Your task to perform on an android device: Go to display settings Image 0: 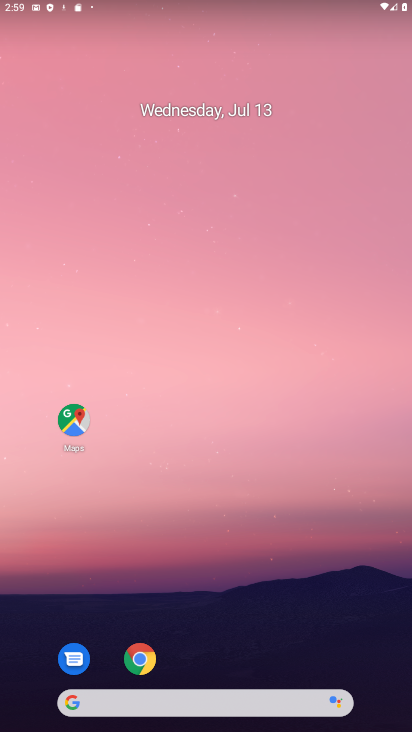
Step 0: press back button
Your task to perform on an android device: Go to display settings Image 1: 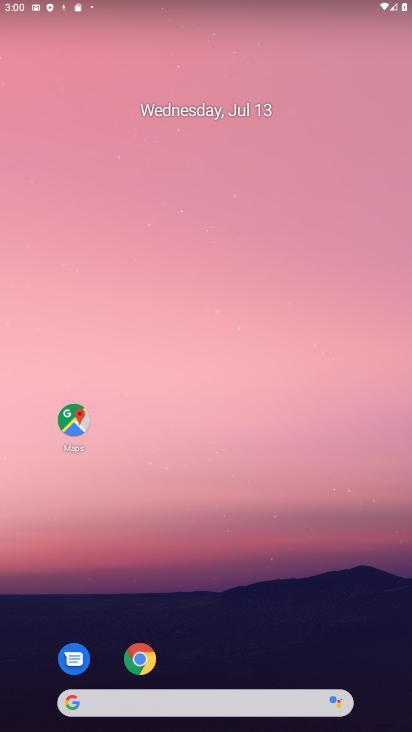
Step 1: drag from (233, 637) to (210, 92)
Your task to perform on an android device: Go to display settings Image 2: 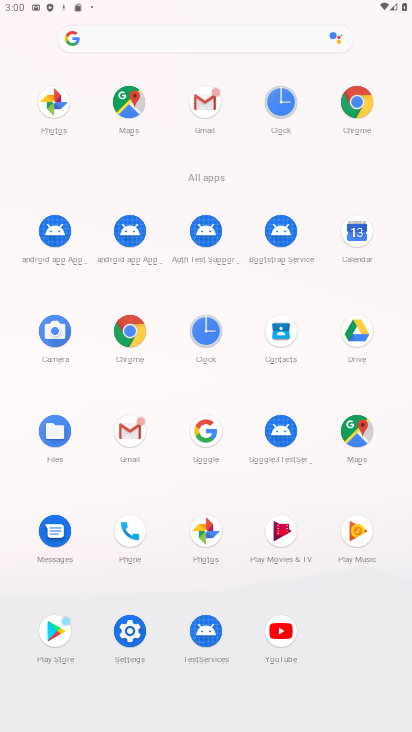
Step 2: click (183, 4)
Your task to perform on an android device: Go to display settings Image 3: 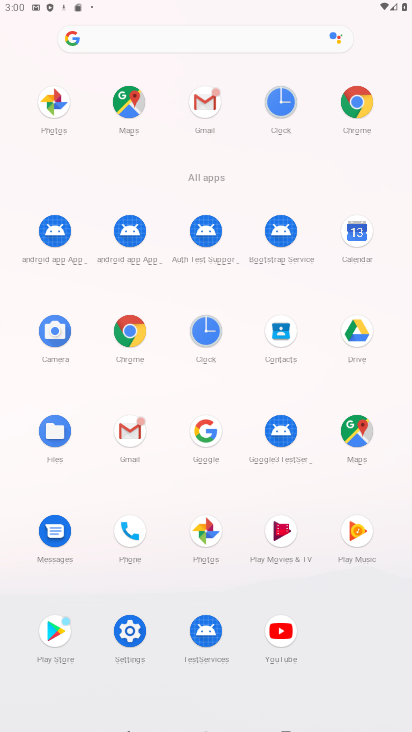
Step 3: click (179, 23)
Your task to perform on an android device: Go to display settings Image 4: 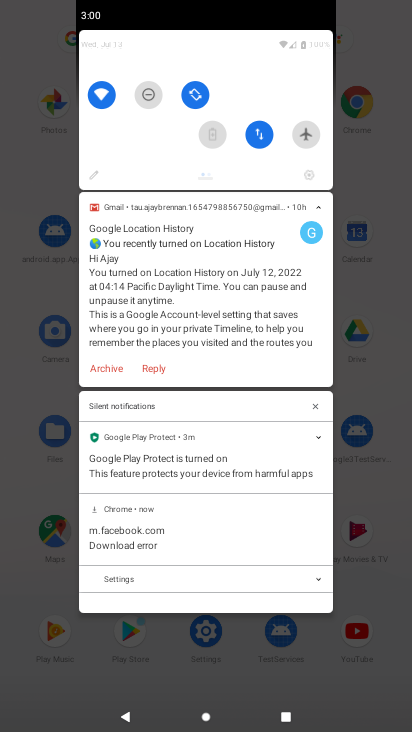
Step 4: drag from (193, 598) to (197, 144)
Your task to perform on an android device: Go to display settings Image 5: 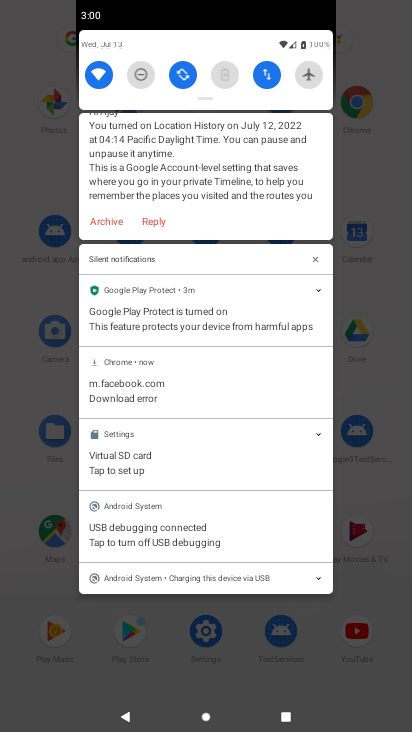
Step 5: drag from (255, 703) to (241, 285)
Your task to perform on an android device: Go to display settings Image 6: 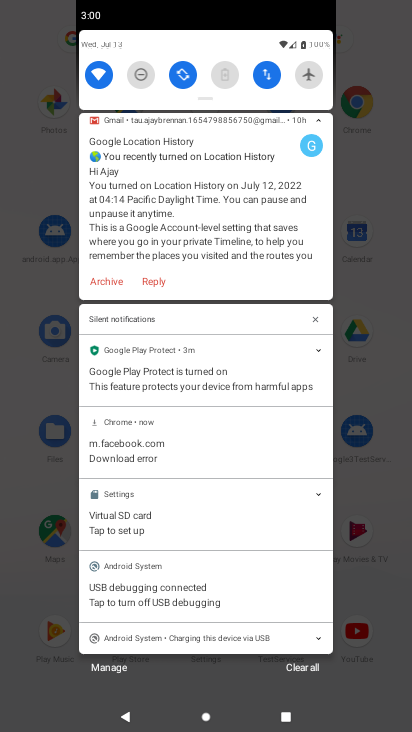
Step 6: drag from (248, 671) to (159, 45)
Your task to perform on an android device: Go to display settings Image 7: 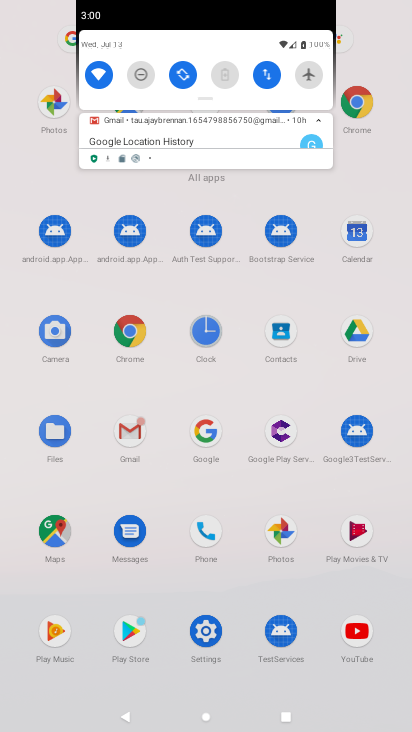
Step 7: click (161, 14)
Your task to perform on an android device: Go to display settings Image 8: 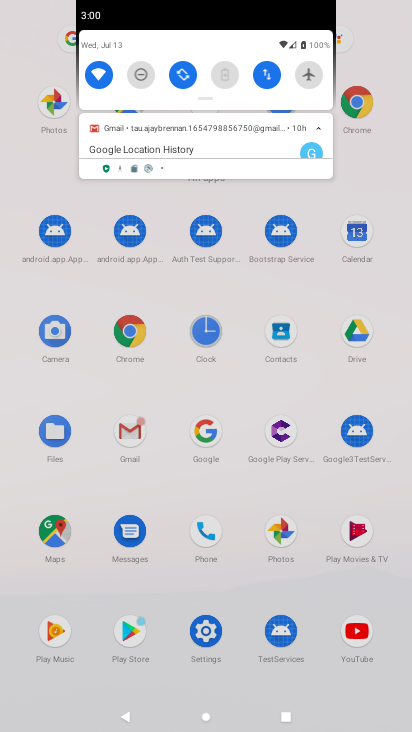
Step 8: click (130, 637)
Your task to perform on an android device: Go to display settings Image 9: 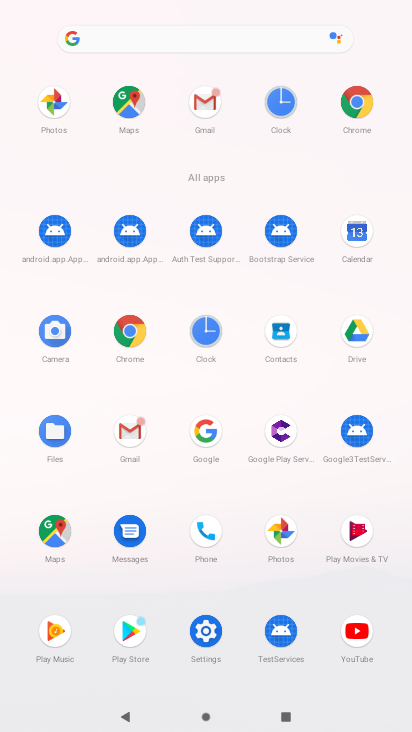
Step 9: click (130, 635)
Your task to perform on an android device: Go to display settings Image 10: 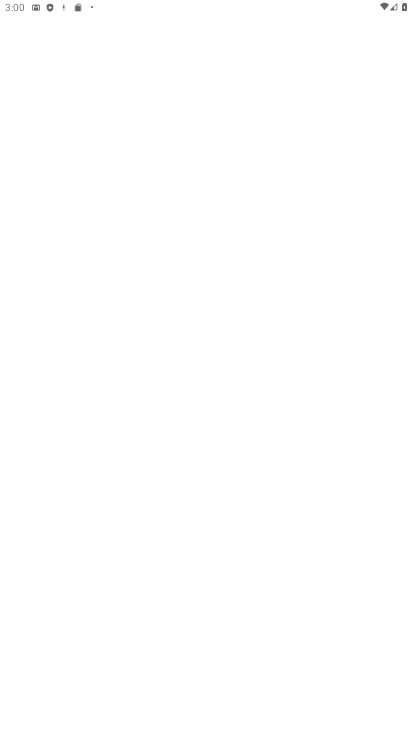
Step 10: click (398, 178)
Your task to perform on an android device: Go to display settings Image 11: 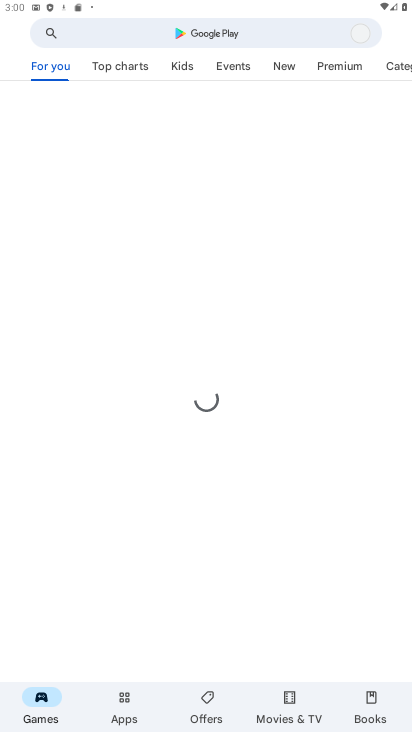
Step 11: click (209, 644)
Your task to perform on an android device: Go to display settings Image 12: 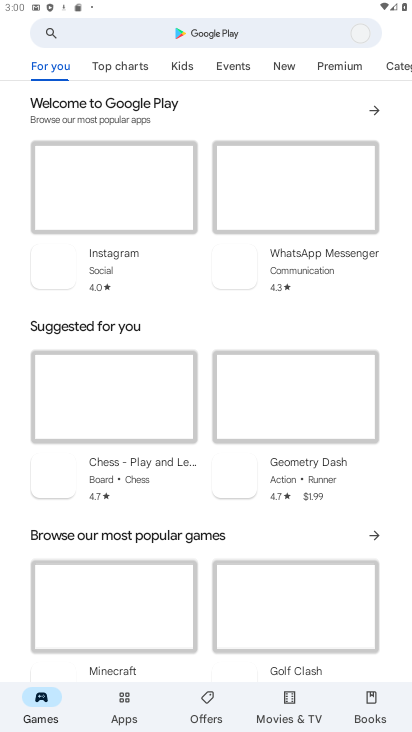
Step 12: click (205, 630)
Your task to perform on an android device: Go to display settings Image 13: 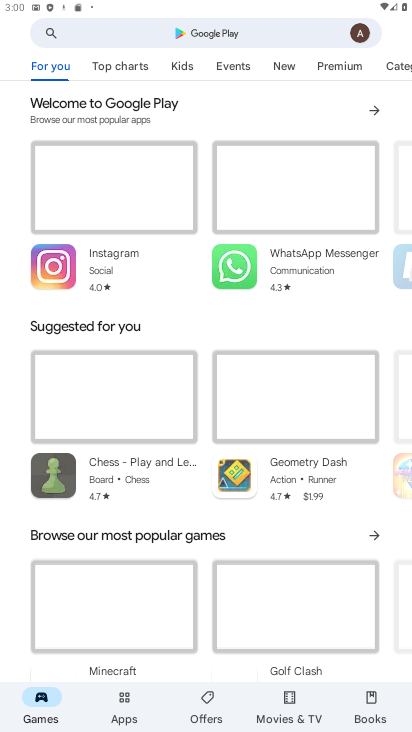
Step 13: click (206, 629)
Your task to perform on an android device: Go to display settings Image 14: 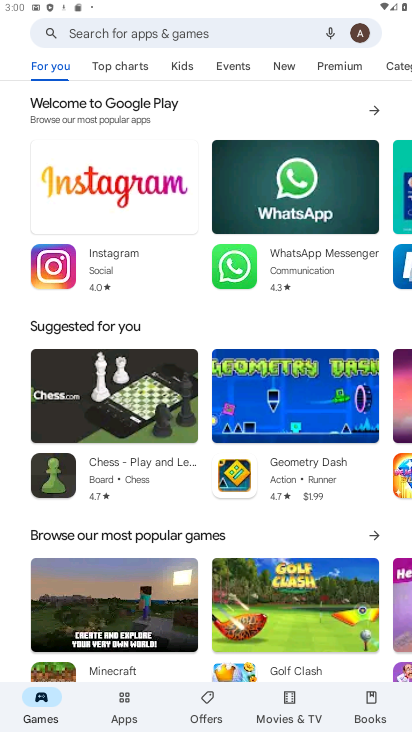
Step 14: press back button
Your task to perform on an android device: Go to display settings Image 15: 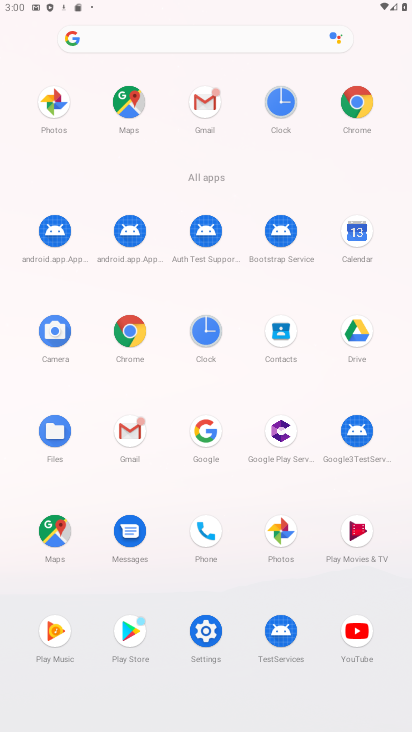
Step 15: click (209, 621)
Your task to perform on an android device: Go to display settings Image 16: 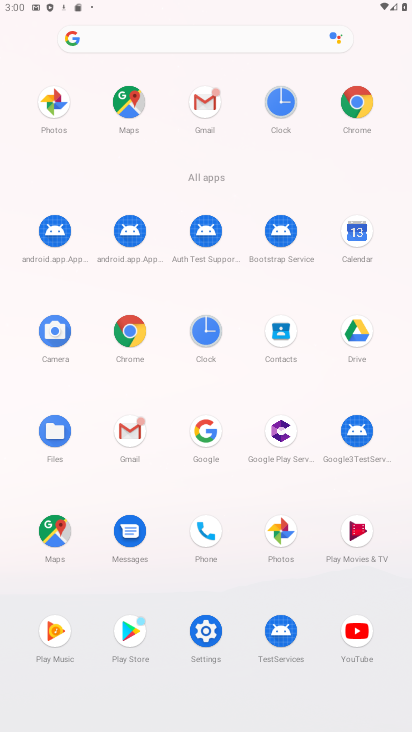
Step 16: click (209, 621)
Your task to perform on an android device: Go to display settings Image 17: 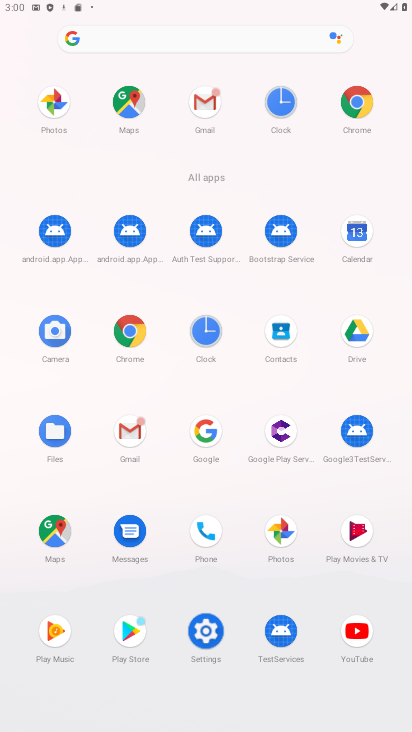
Step 17: click (209, 621)
Your task to perform on an android device: Go to display settings Image 18: 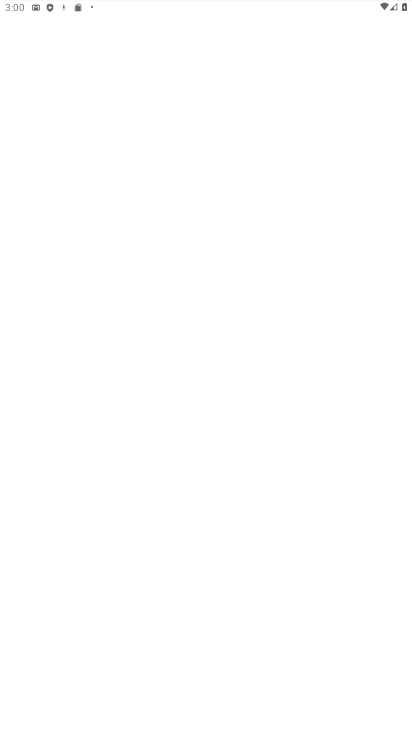
Step 18: click (209, 621)
Your task to perform on an android device: Go to display settings Image 19: 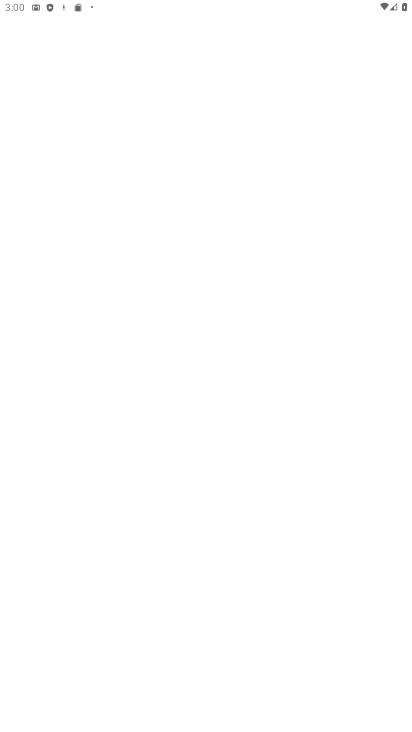
Step 19: click (210, 620)
Your task to perform on an android device: Go to display settings Image 20: 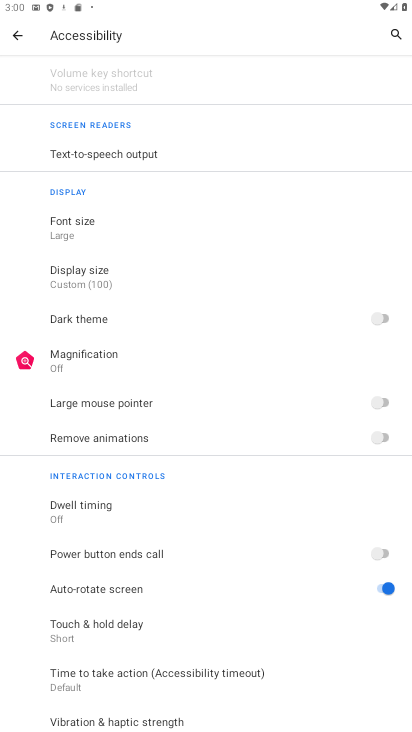
Step 20: click (15, 40)
Your task to perform on an android device: Go to display settings Image 21: 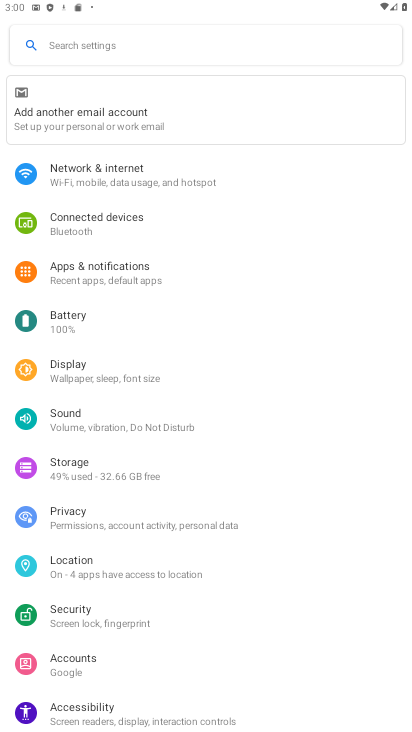
Step 21: click (59, 372)
Your task to perform on an android device: Go to display settings Image 22: 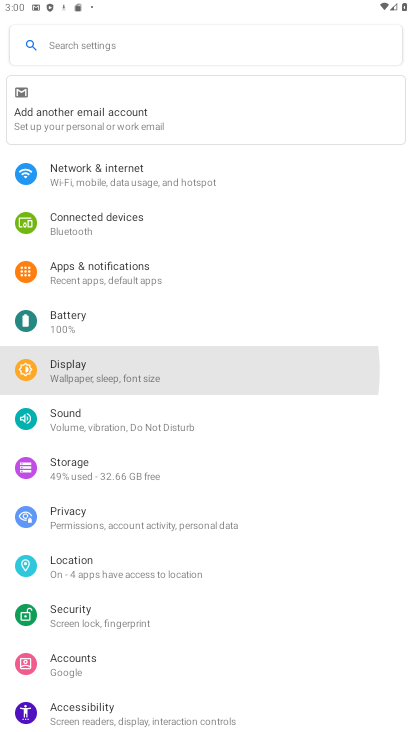
Step 22: click (67, 357)
Your task to perform on an android device: Go to display settings Image 23: 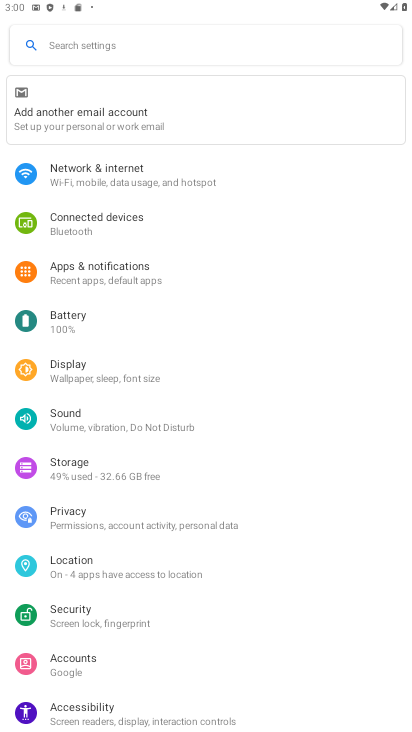
Step 23: click (82, 364)
Your task to perform on an android device: Go to display settings Image 24: 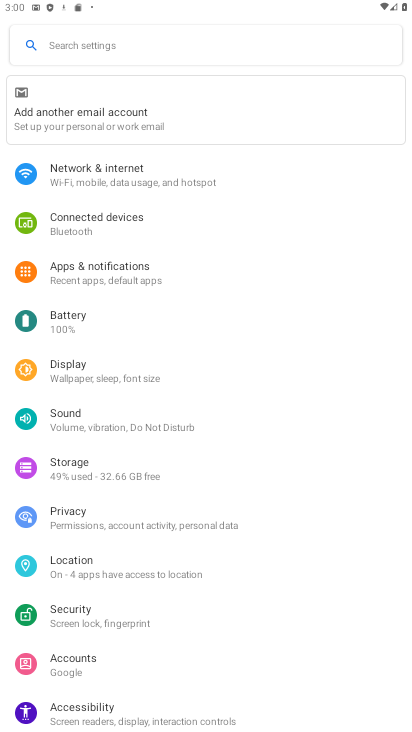
Step 24: click (84, 366)
Your task to perform on an android device: Go to display settings Image 25: 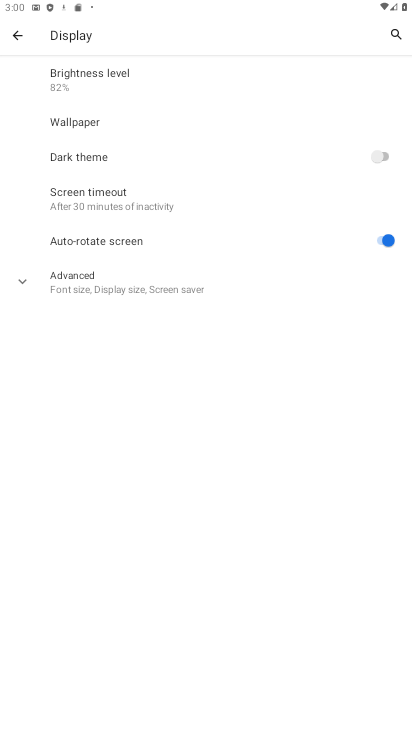
Step 25: click (84, 375)
Your task to perform on an android device: Go to display settings Image 26: 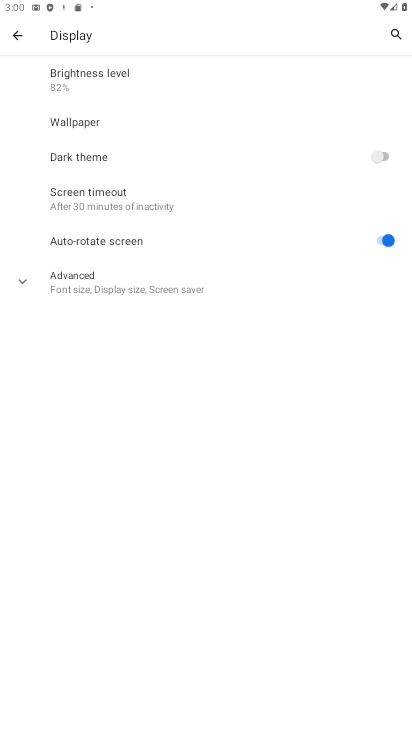
Step 26: click (84, 375)
Your task to perform on an android device: Go to display settings Image 27: 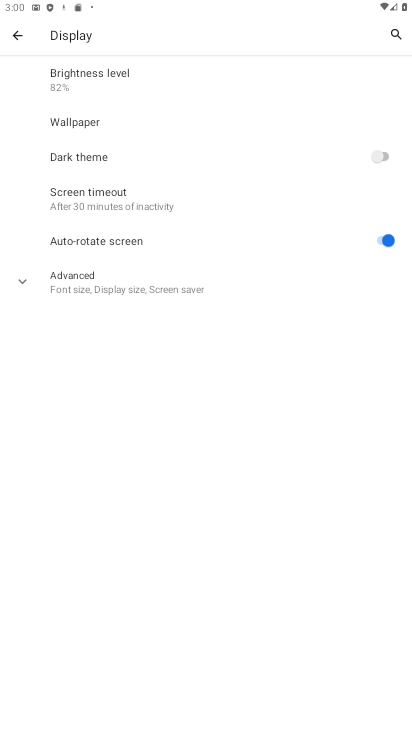
Step 27: click (73, 365)
Your task to perform on an android device: Go to display settings Image 28: 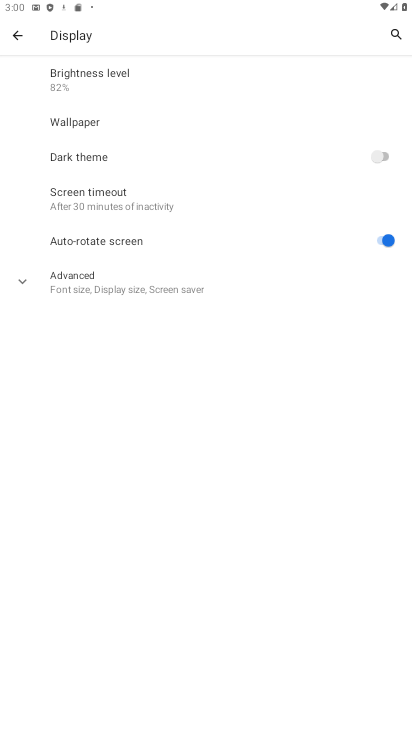
Step 28: click (72, 365)
Your task to perform on an android device: Go to display settings Image 29: 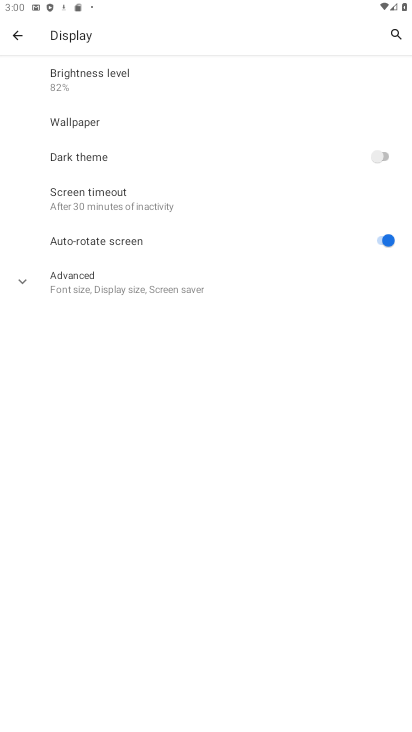
Step 29: click (72, 364)
Your task to perform on an android device: Go to display settings Image 30: 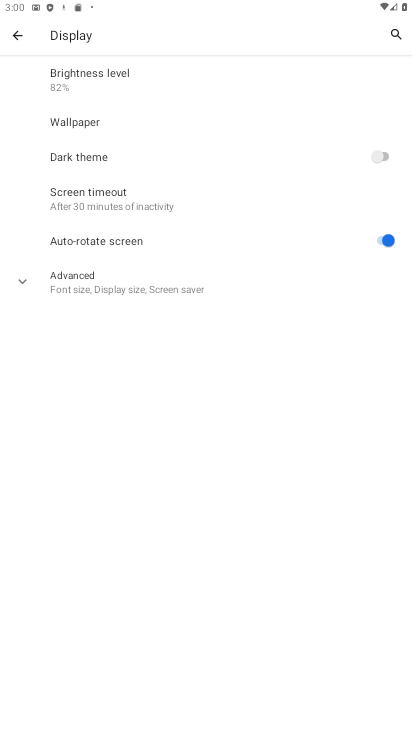
Step 30: task complete